Your task to perform on an android device: Go to Amazon Image 0: 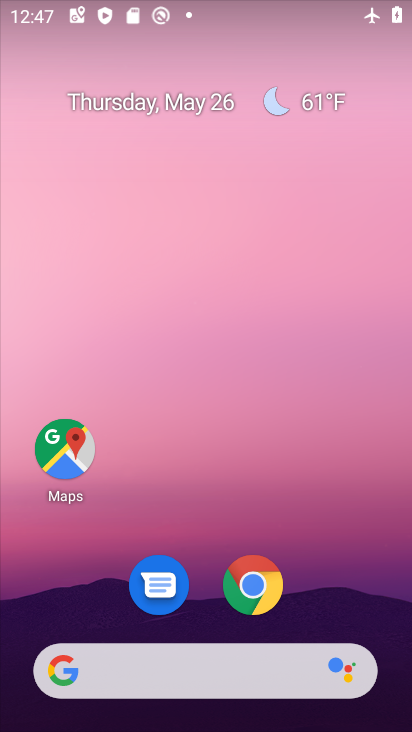
Step 0: click (263, 574)
Your task to perform on an android device: Go to Amazon Image 1: 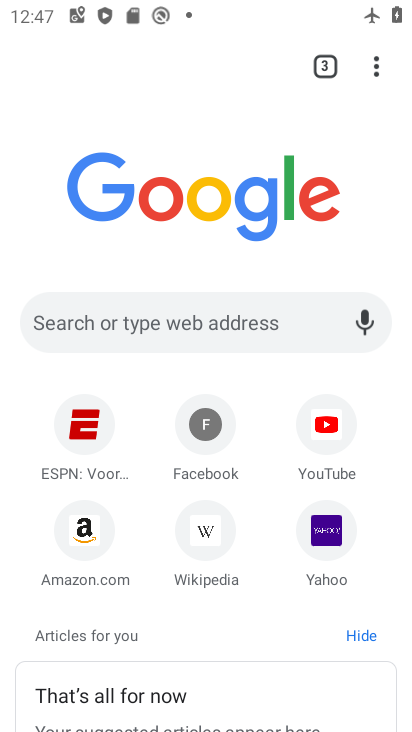
Step 1: click (89, 525)
Your task to perform on an android device: Go to Amazon Image 2: 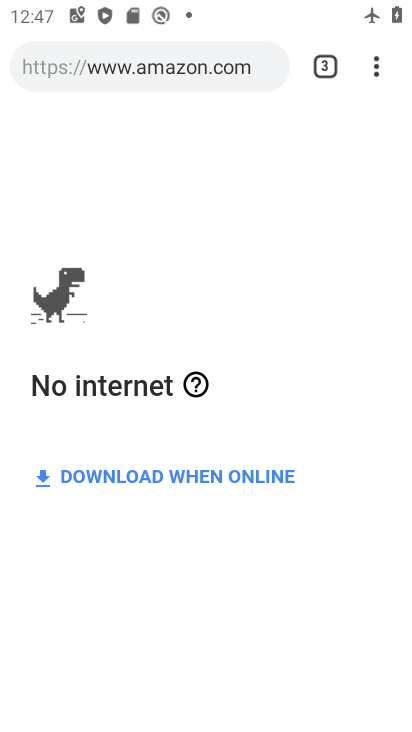
Step 2: task complete